Your task to perform on an android device: turn pop-ups on in chrome Image 0: 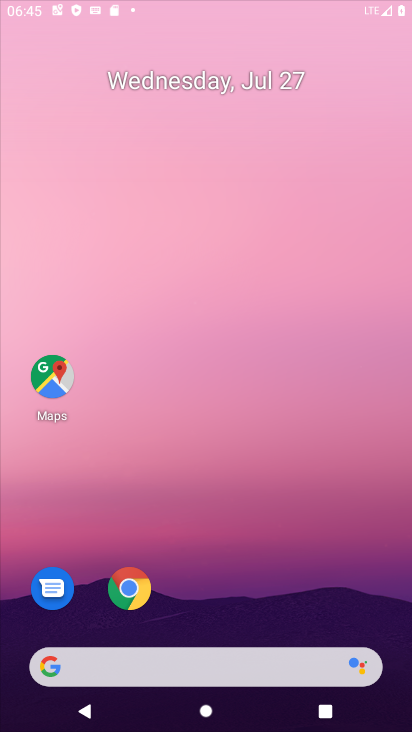
Step 0: press home button
Your task to perform on an android device: turn pop-ups on in chrome Image 1: 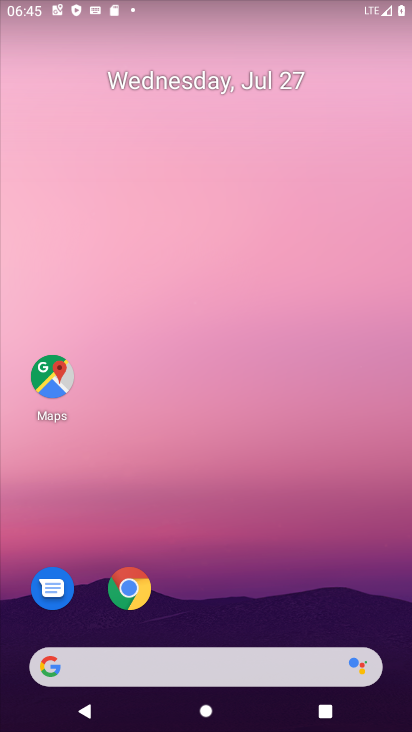
Step 1: drag from (270, 654) to (284, 88)
Your task to perform on an android device: turn pop-ups on in chrome Image 2: 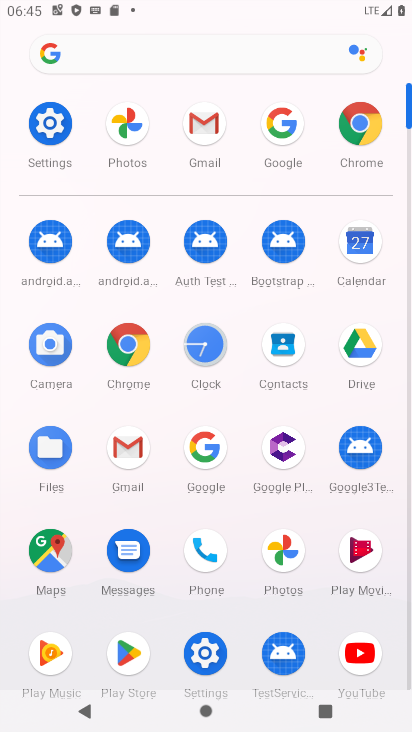
Step 2: click (141, 329)
Your task to perform on an android device: turn pop-ups on in chrome Image 3: 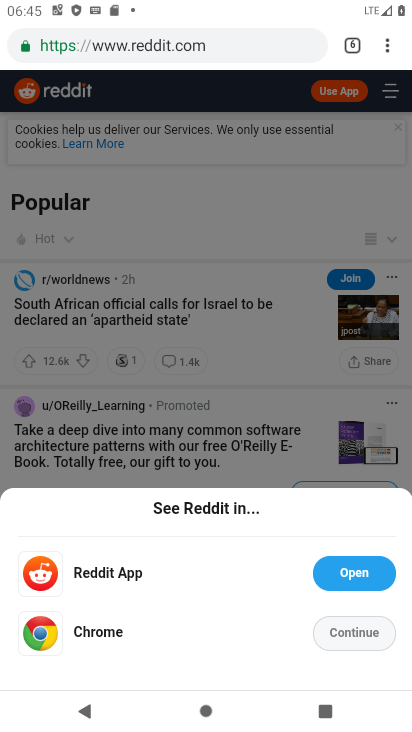
Step 3: click (390, 44)
Your task to perform on an android device: turn pop-ups on in chrome Image 4: 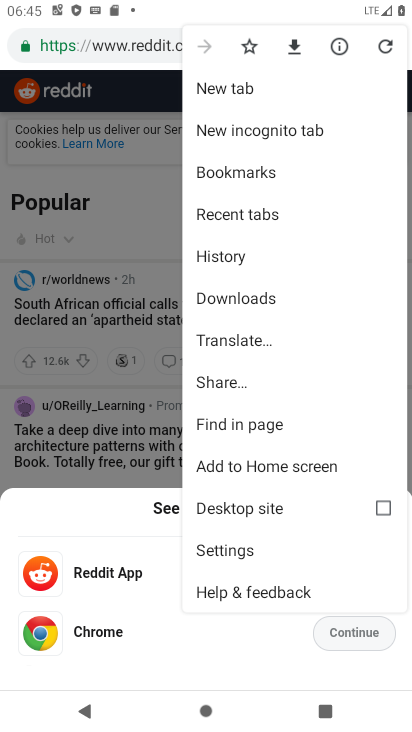
Step 4: click (260, 551)
Your task to perform on an android device: turn pop-ups on in chrome Image 5: 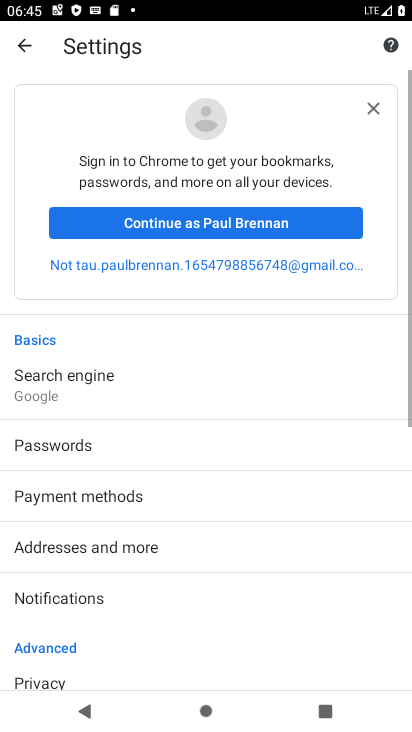
Step 5: drag from (203, 635) to (281, 53)
Your task to perform on an android device: turn pop-ups on in chrome Image 6: 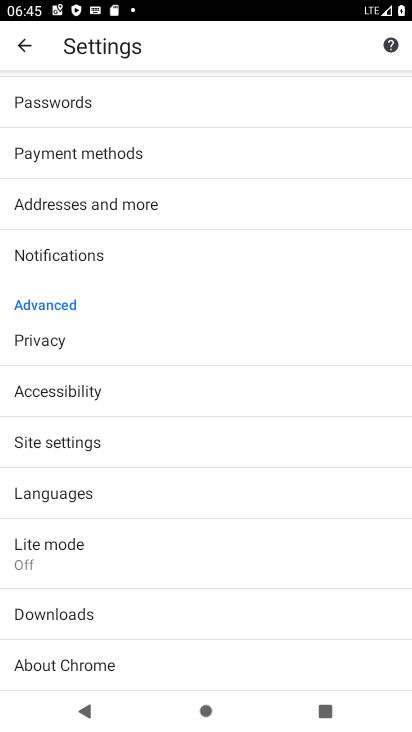
Step 6: click (158, 446)
Your task to perform on an android device: turn pop-ups on in chrome Image 7: 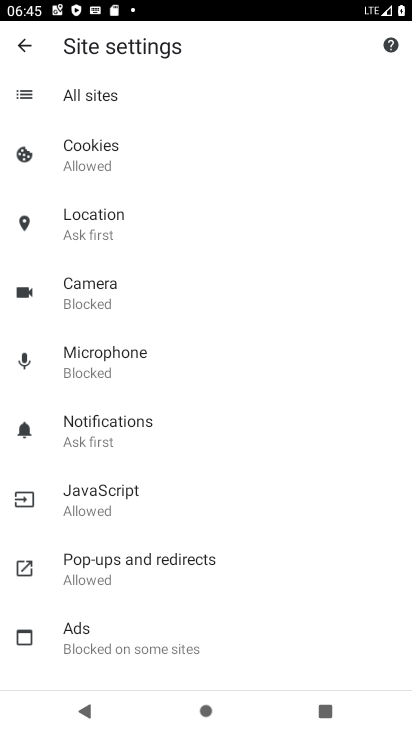
Step 7: click (131, 564)
Your task to perform on an android device: turn pop-ups on in chrome Image 8: 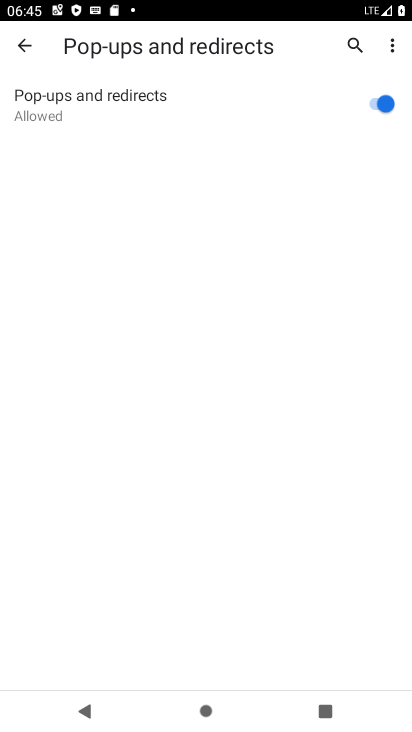
Step 8: task complete